Your task to perform on an android device: open a bookmark in the chrome app Image 0: 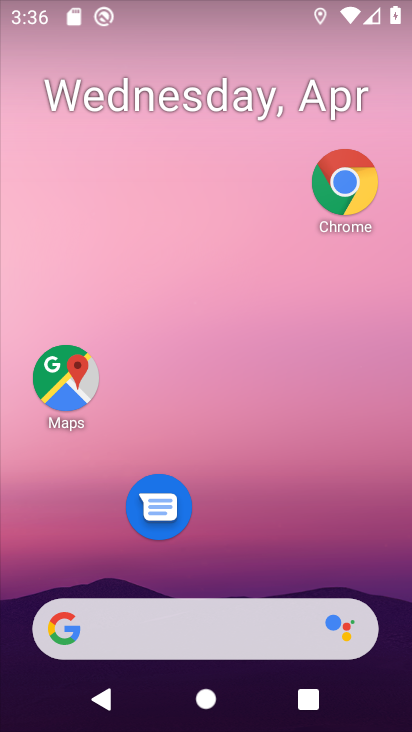
Step 0: click (339, 197)
Your task to perform on an android device: open a bookmark in the chrome app Image 1: 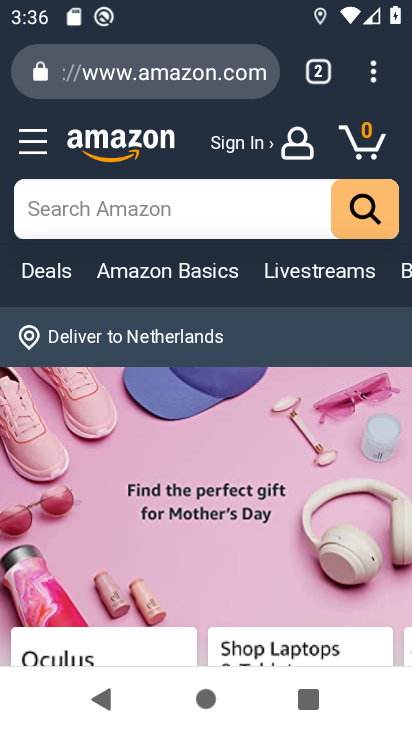
Step 1: click (376, 72)
Your task to perform on an android device: open a bookmark in the chrome app Image 2: 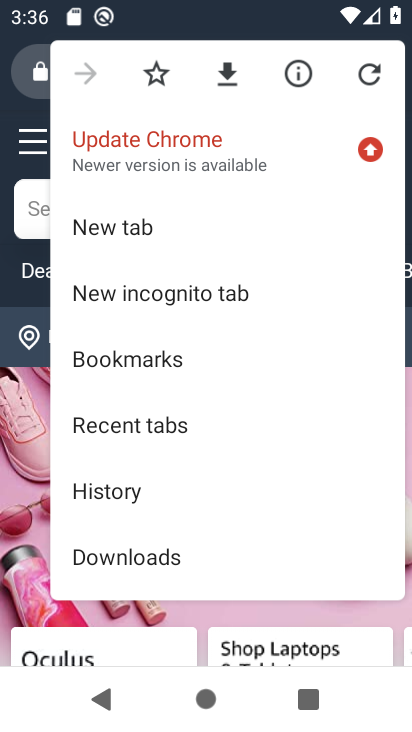
Step 2: click (152, 364)
Your task to perform on an android device: open a bookmark in the chrome app Image 3: 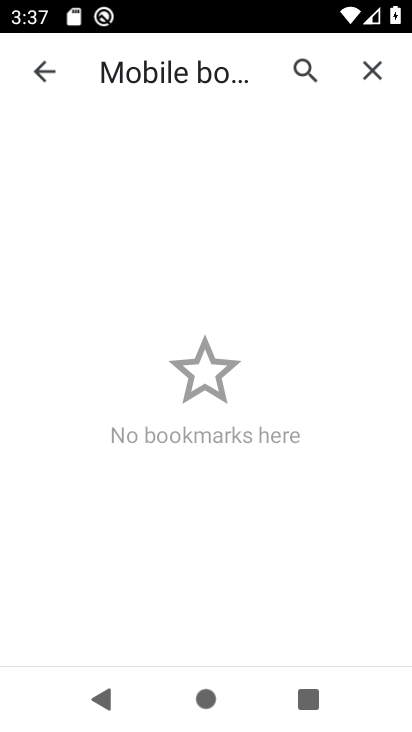
Step 3: task complete